Your task to perform on an android device: Open Reddit.com Image 0: 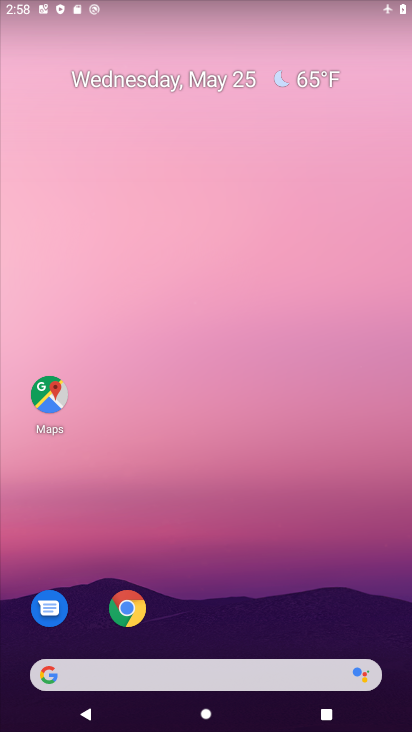
Step 0: click (126, 610)
Your task to perform on an android device: Open Reddit.com Image 1: 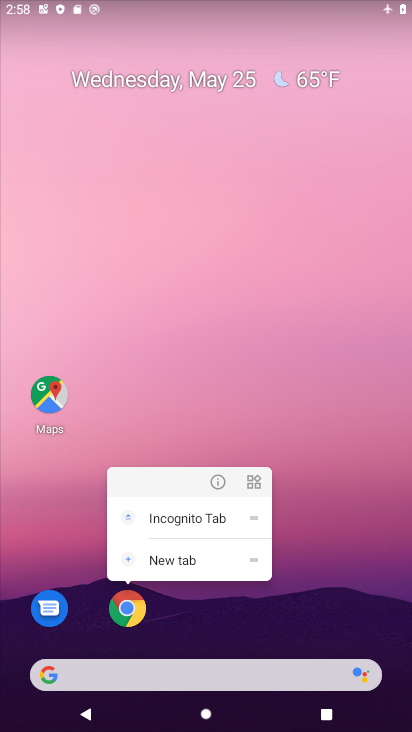
Step 1: click (132, 601)
Your task to perform on an android device: Open Reddit.com Image 2: 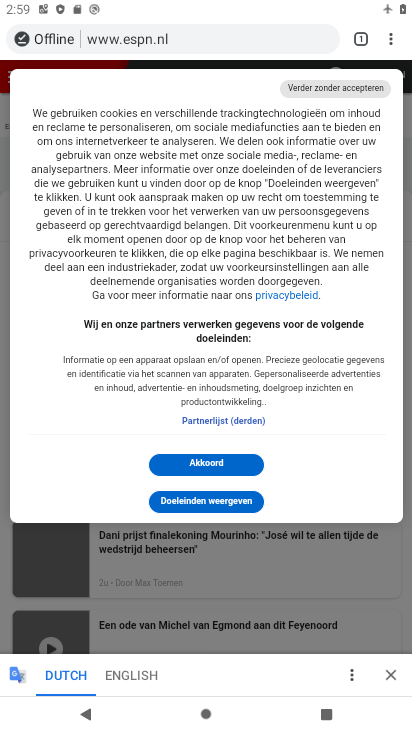
Step 2: click (166, 38)
Your task to perform on an android device: Open Reddit.com Image 3: 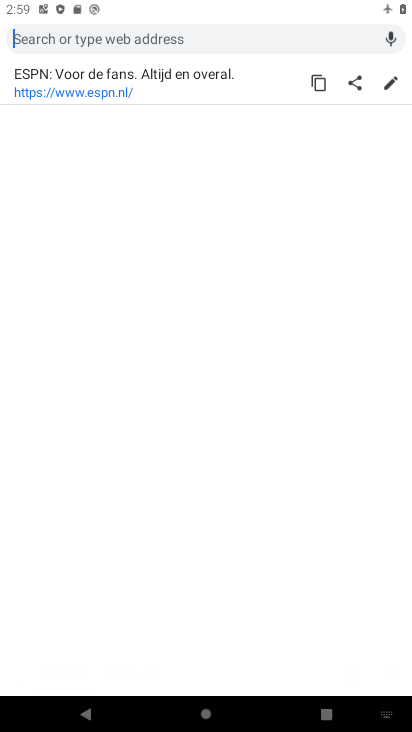
Step 3: type "reddit.com"
Your task to perform on an android device: Open Reddit.com Image 4: 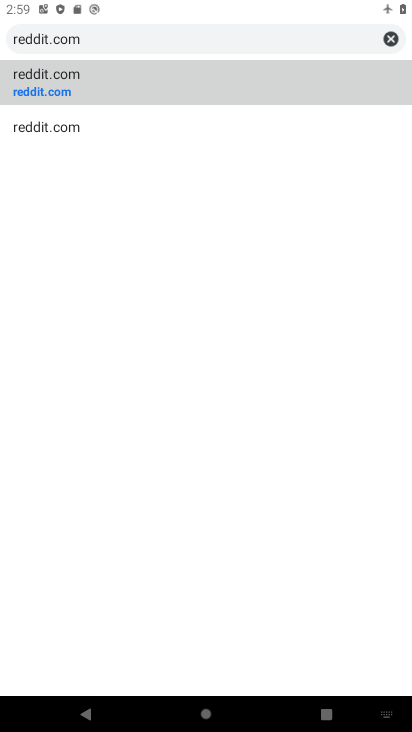
Step 4: click (47, 81)
Your task to perform on an android device: Open Reddit.com Image 5: 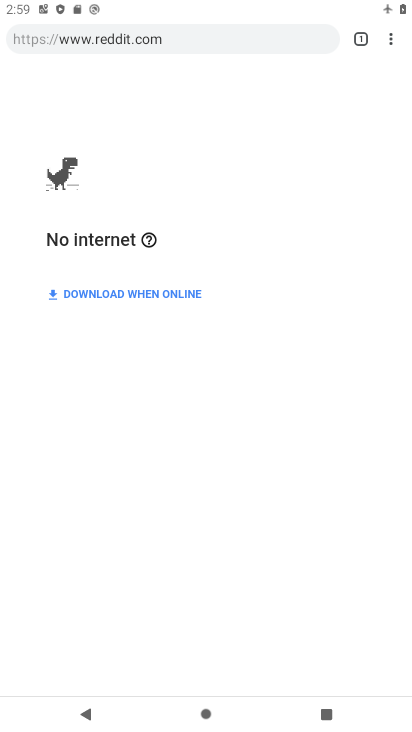
Step 5: task complete